Your task to perform on an android device: View the shopping cart on bestbuy. Image 0: 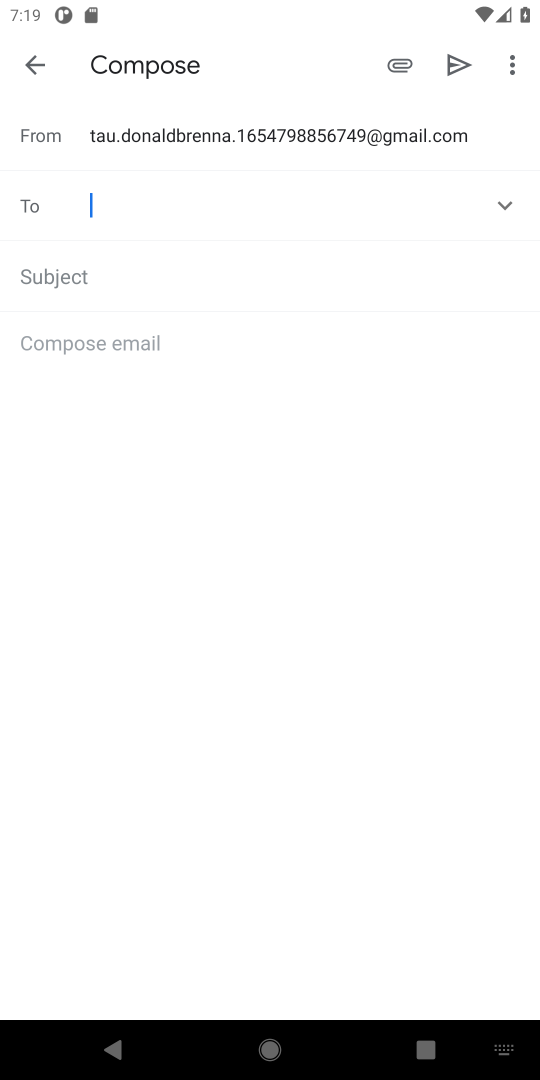
Step 0: press home button
Your task to perform on an android device: View the shopping cart on bestbuy. Image 1: 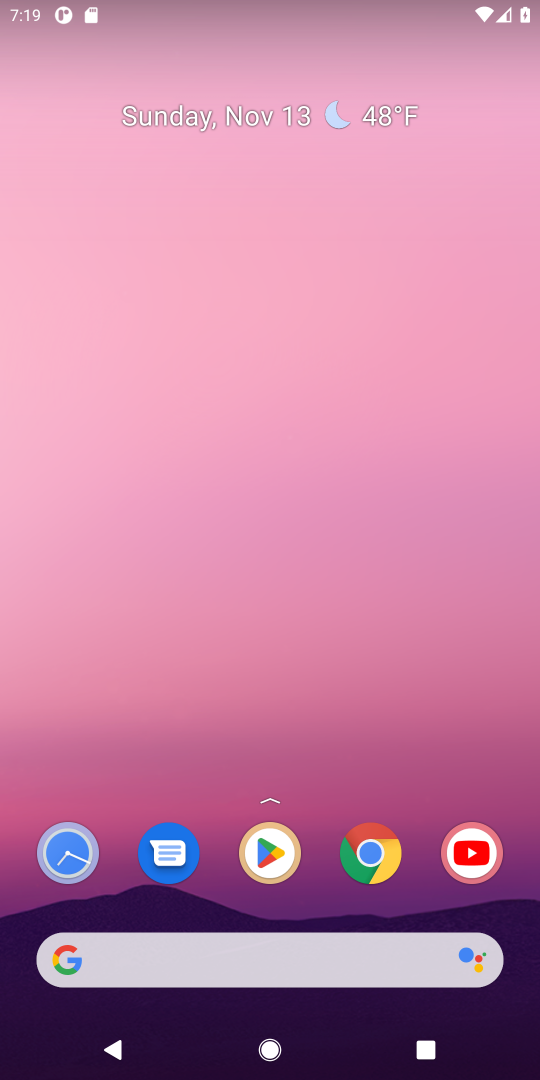
Step 1: click (100, 960)
Your task to perform on an android device: View the shopping cart on bestbuy. Image 2: 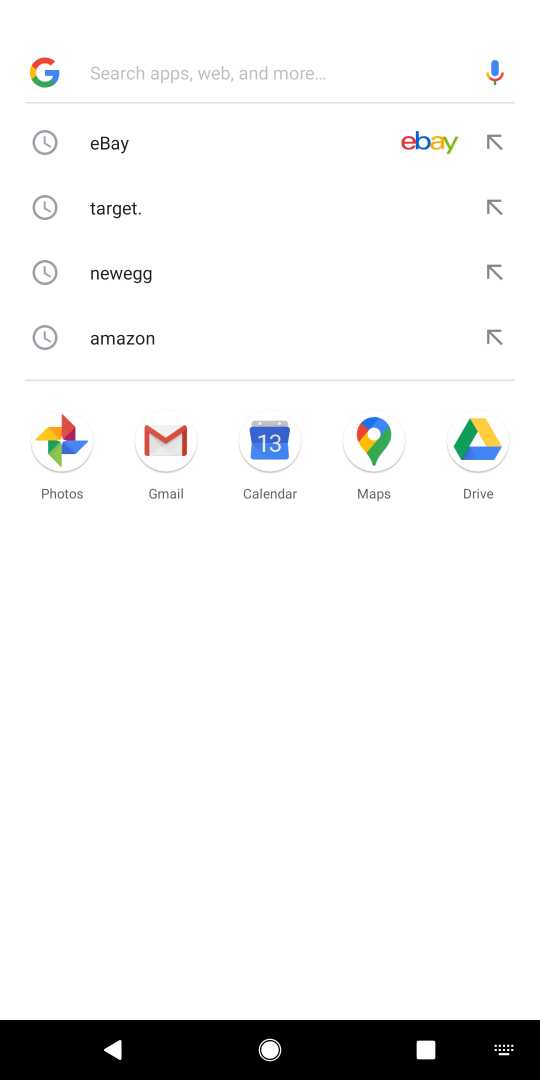
Step 2: type "bestbuy"
Your task to perform on an android device: View the shopping cart on bestbuy. Image 3: 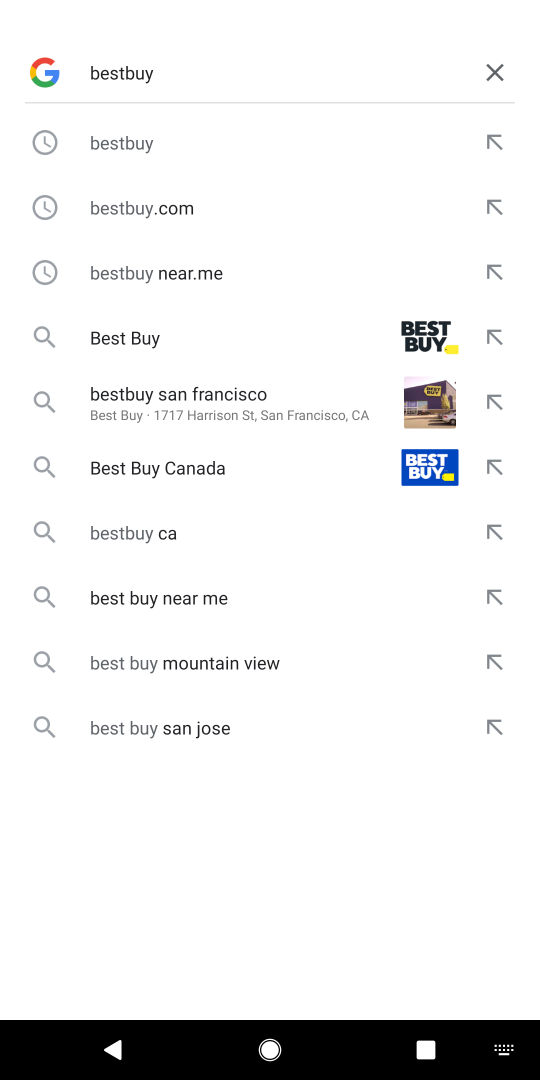
Step 3: press enter
Your task to perform on an android device: View the shopping cart on bestbuy. Image 4: 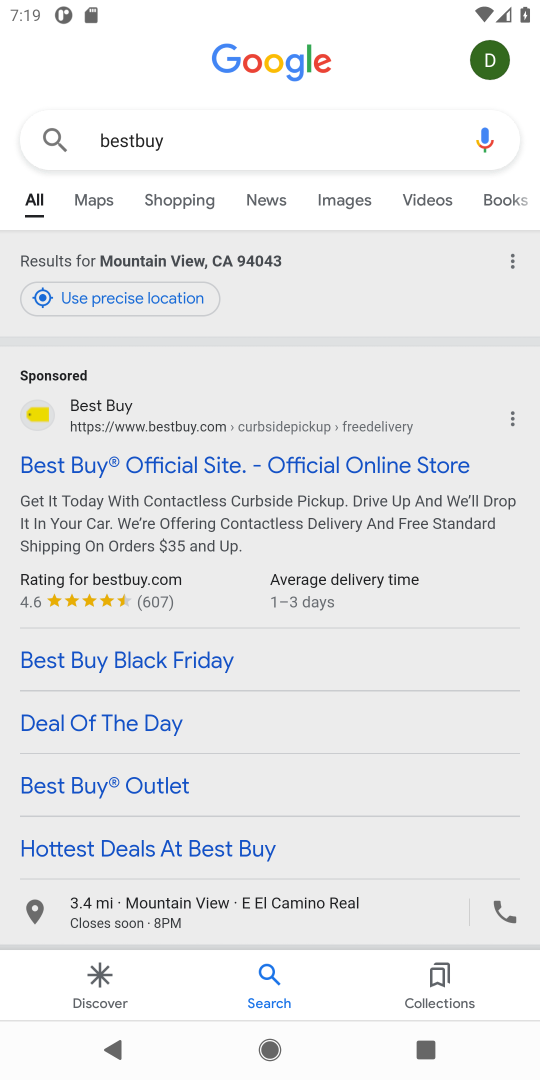
Step 4: click (170, 457)
Your task to perform on an android device: View the shopping cart on bestbuy. Image 5: 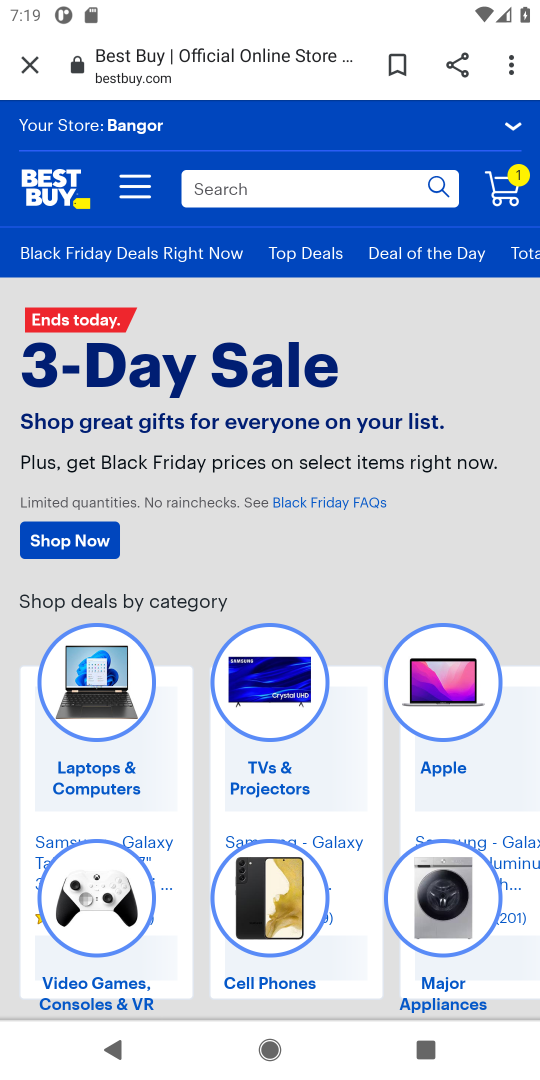
Step 5: click (511, 185)
Your task to perform on an android device: View the shopping cart on bestbuy. Image 6: 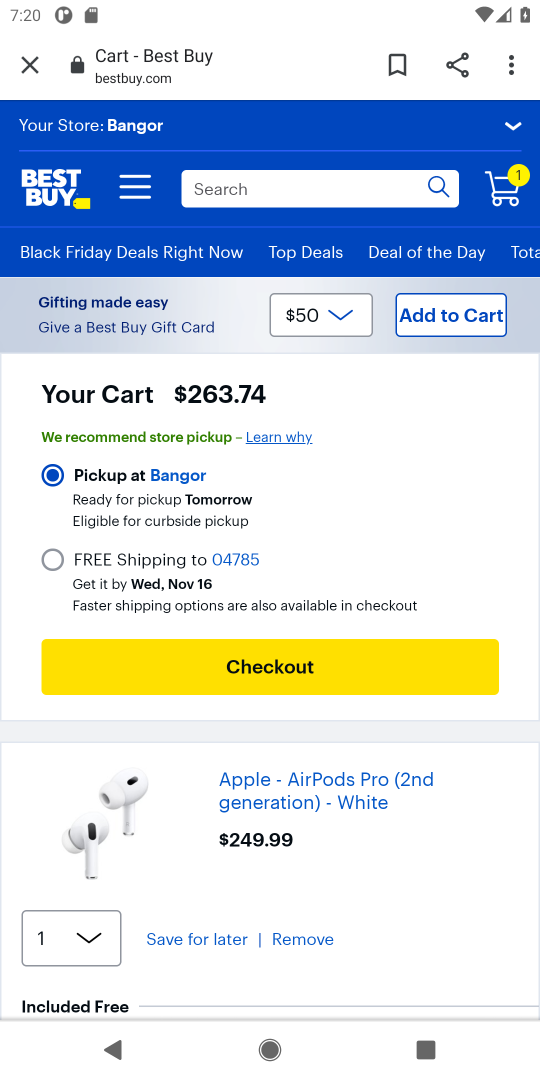
Step 6: task complete